Your task to perform on an android device: change the upload size in google photos Image 0: 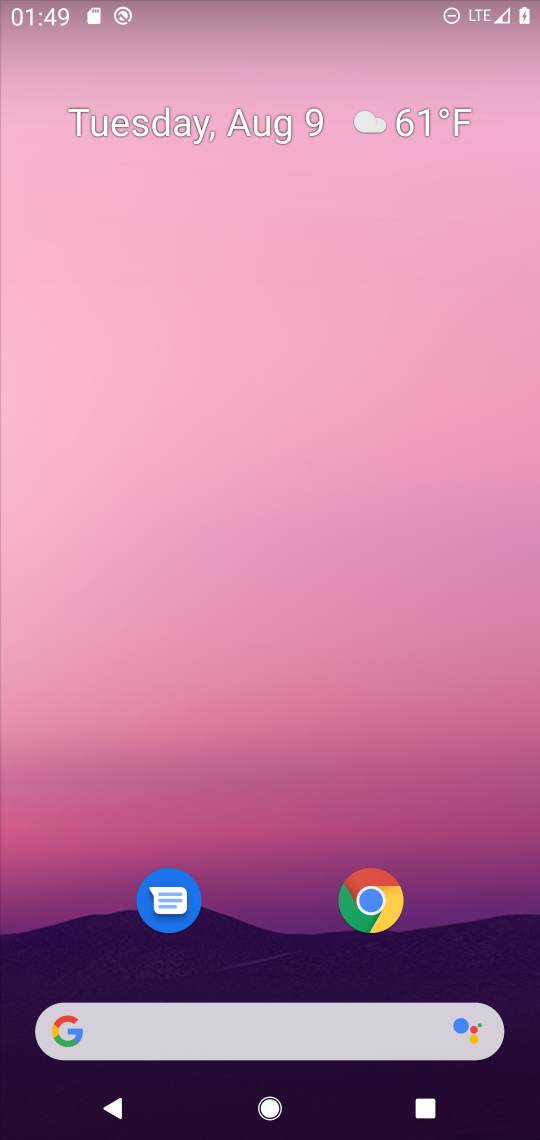
Step 0: drag from (270, 880) to (471, 129)
Your task to perform on an android device: change the upload size in google photos Image 1: 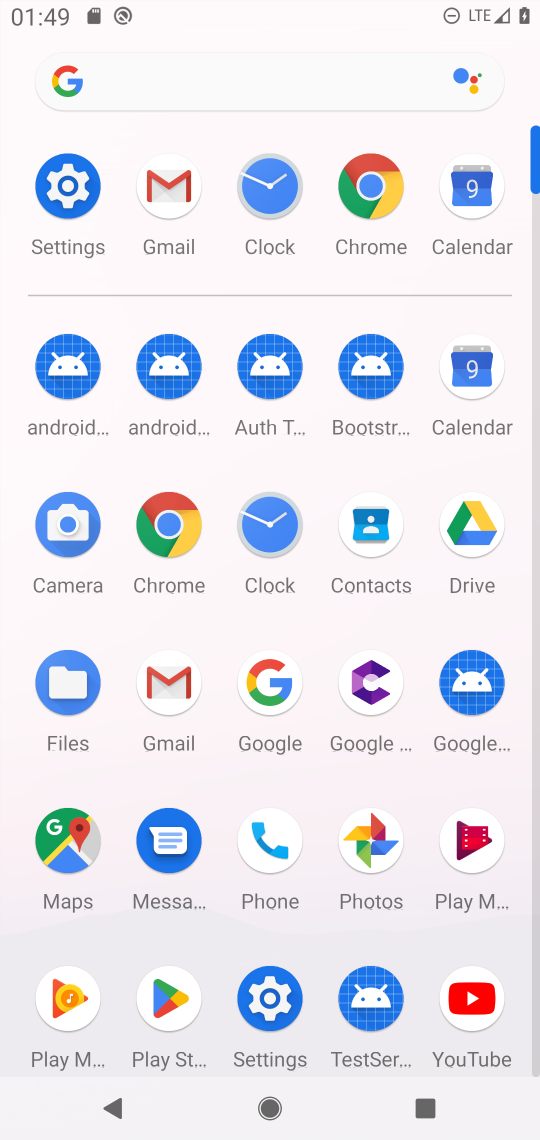
Step 1: click (360, 840)
Your task to perform on an android device: change the upload size in google photos Image 2: 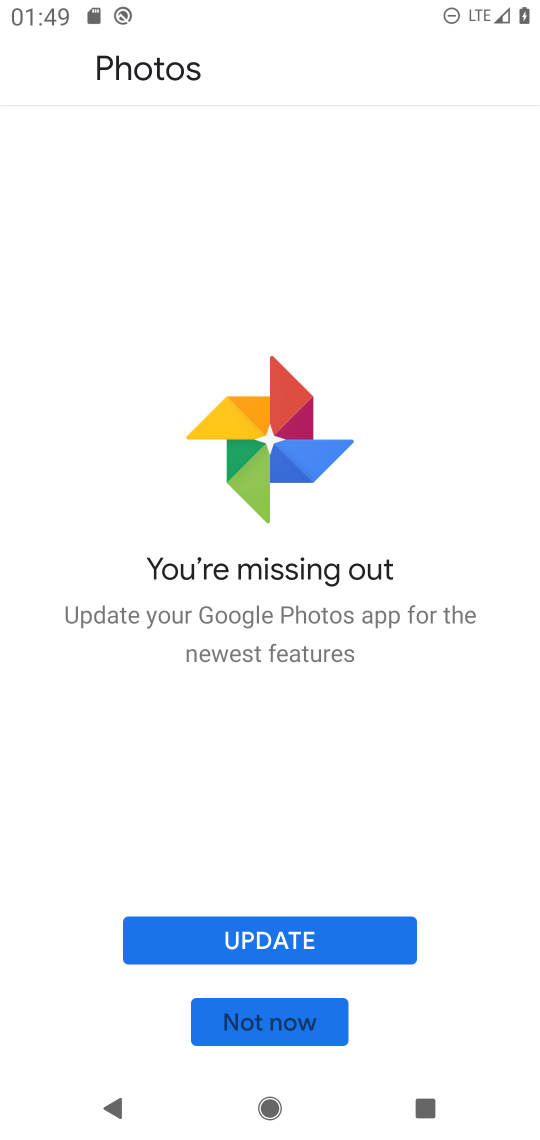
Step 2: click (439, 642)
Your task to perform on an android device: change the upload size in google photos Image 3: 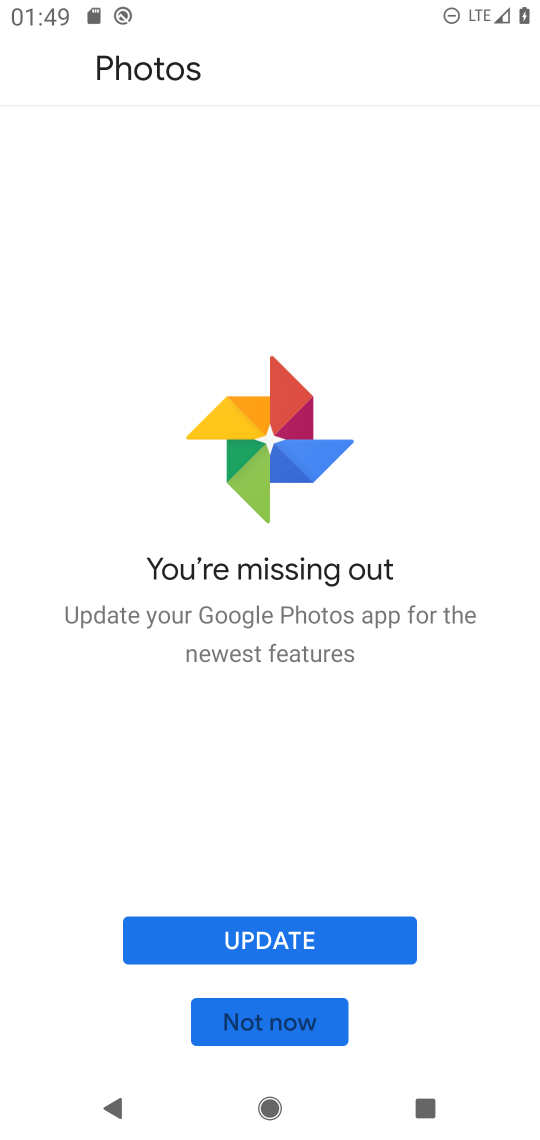
Step 3: click (263, 941)
Your task to perform on an android device: change the upload size in google photos Image 4: 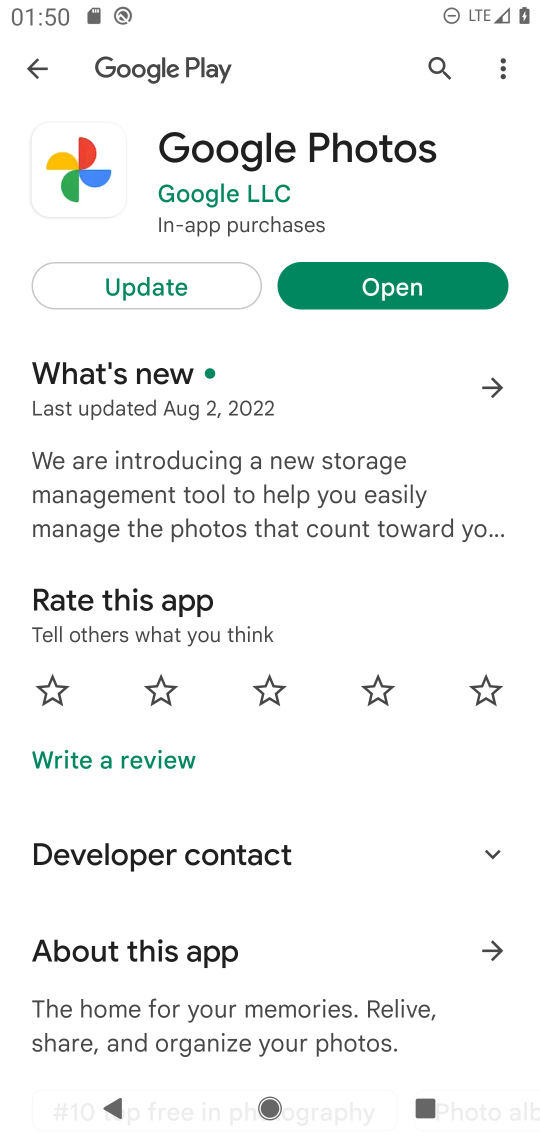
Step 4: click (184, 278)
Your task to perform on an android device: change the upload size in google photos Image 5: 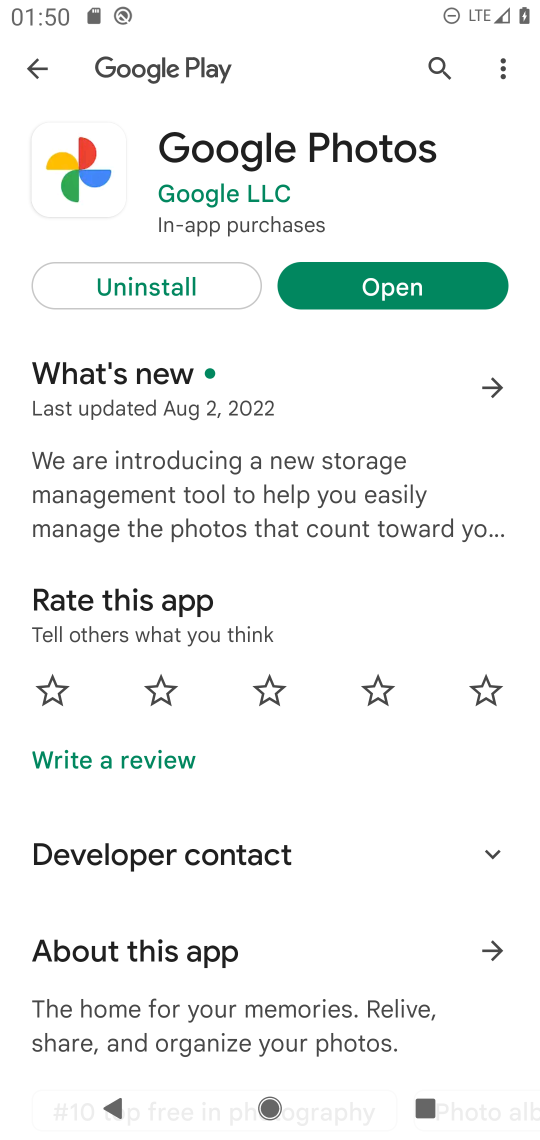
Step 5: click (409, 289)
Your task to perform on an android device: change the upload size in google photos Image 6: 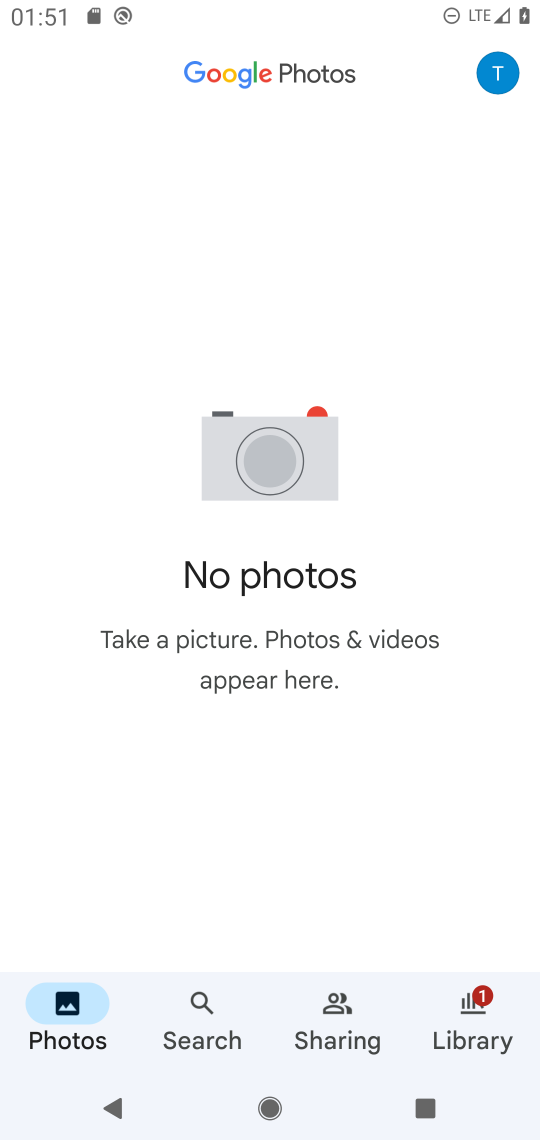
Step 6: click (493, 73)
Your task to perform on an android device: change the upload size in google photos Image 7: 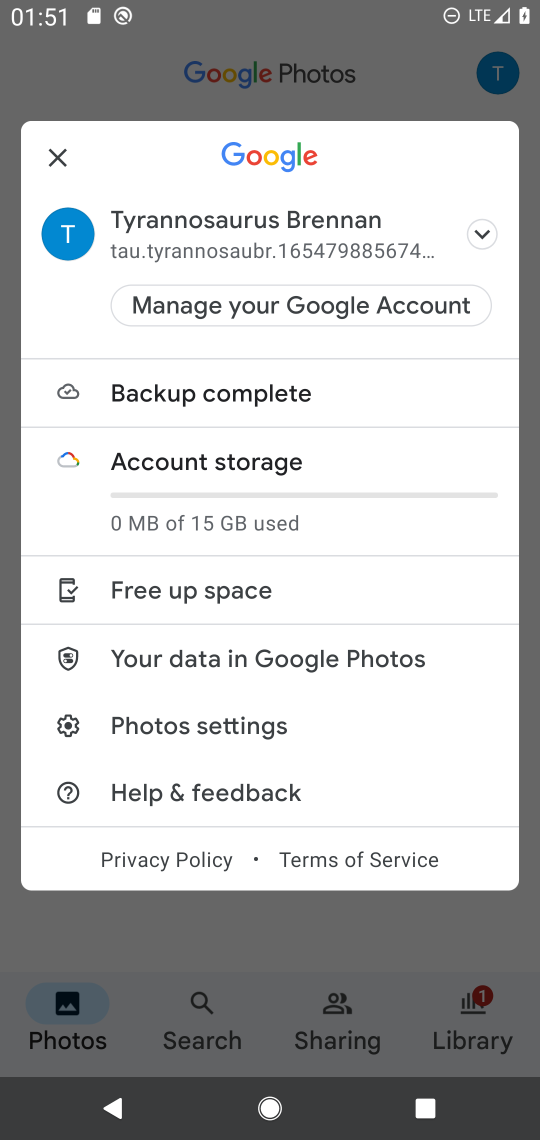
Step 7: click (252, 728)
Your task to perform on an android device: change the upload size in google photos Image 8: 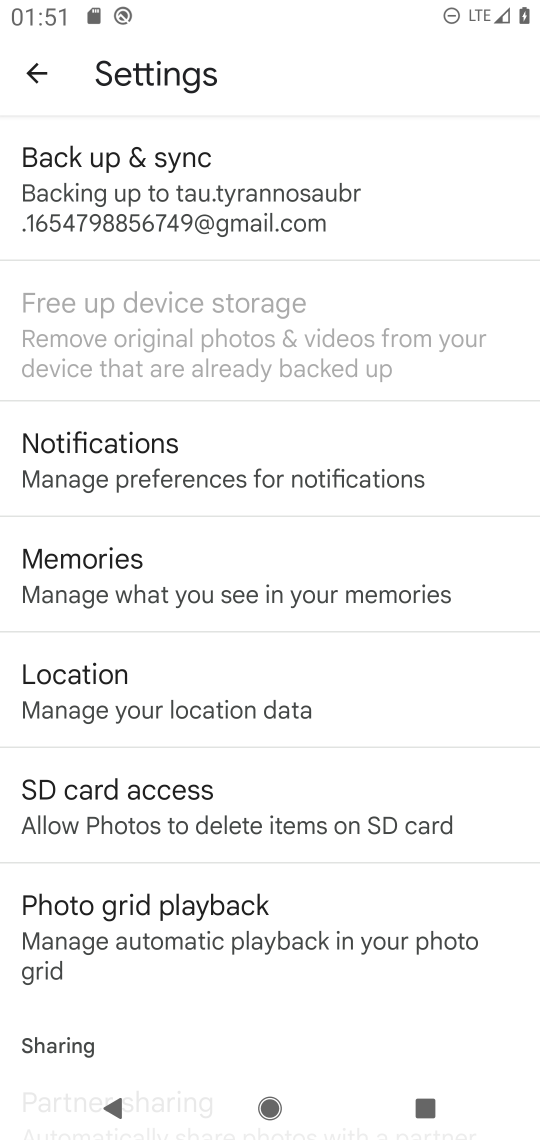
Step 8: click (267, 184)
Your task to perform on an android device: change the upload size in google photos Image 9: 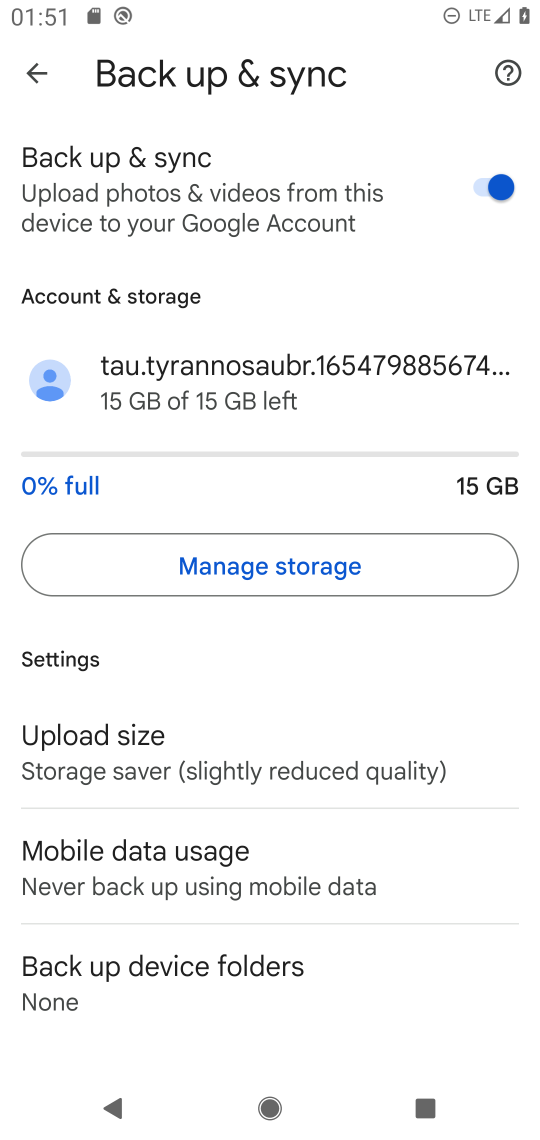
Step 9: drag from (415, 825) to (426, 580)
Your task to perform on an android device: change the upload size in google photos Image 10: 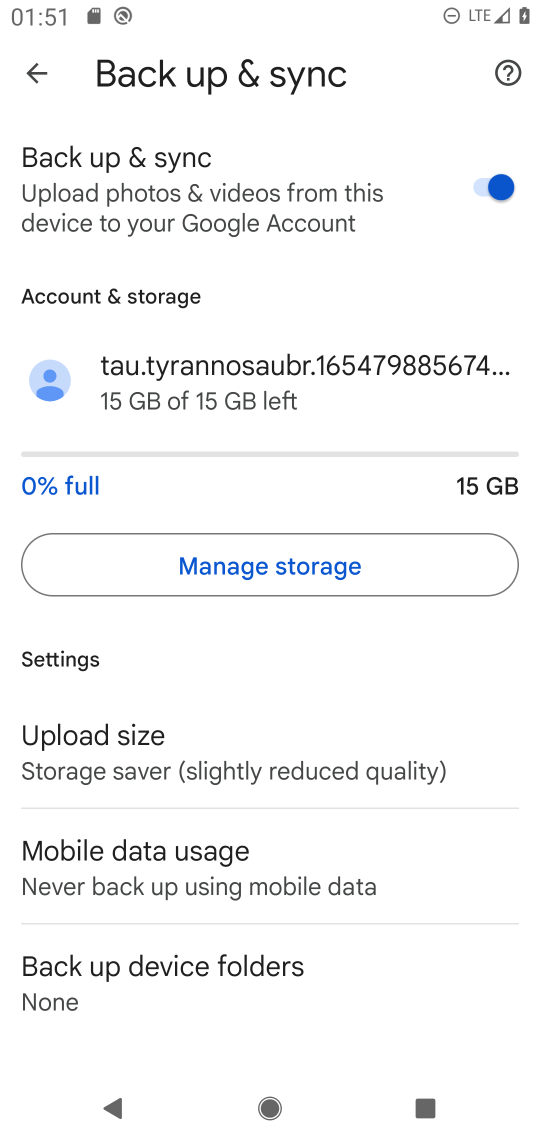
Step 10: drag from (437, 854) to (449, 509)
Your task to perform on an android device: change the upload size in google photos Image 11: 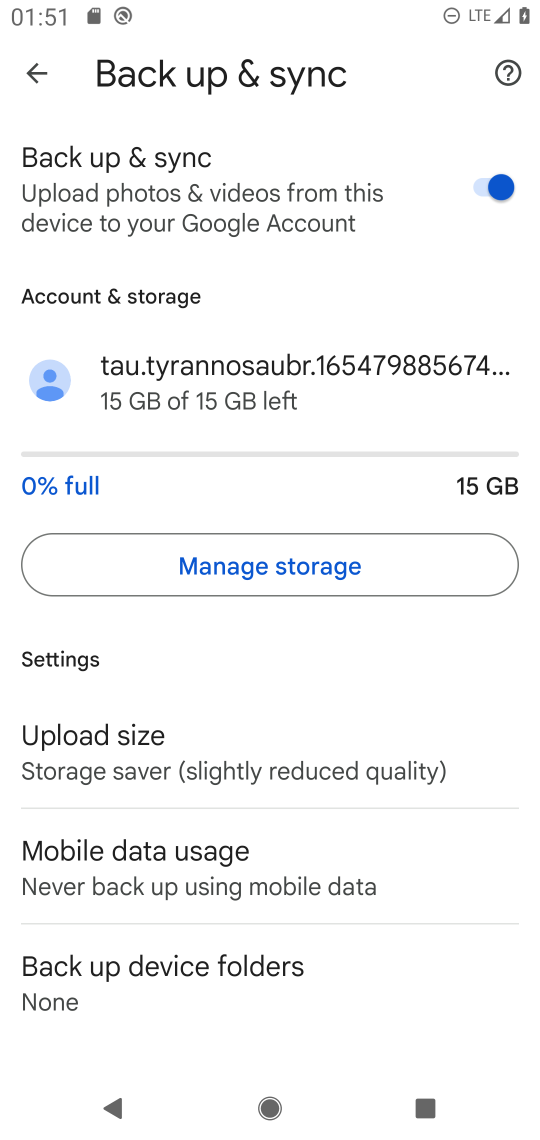
Step 11: drag from (462, 905) to (473, 799)
Your task to perform on an android device: change the upload size in google photos Image 12: 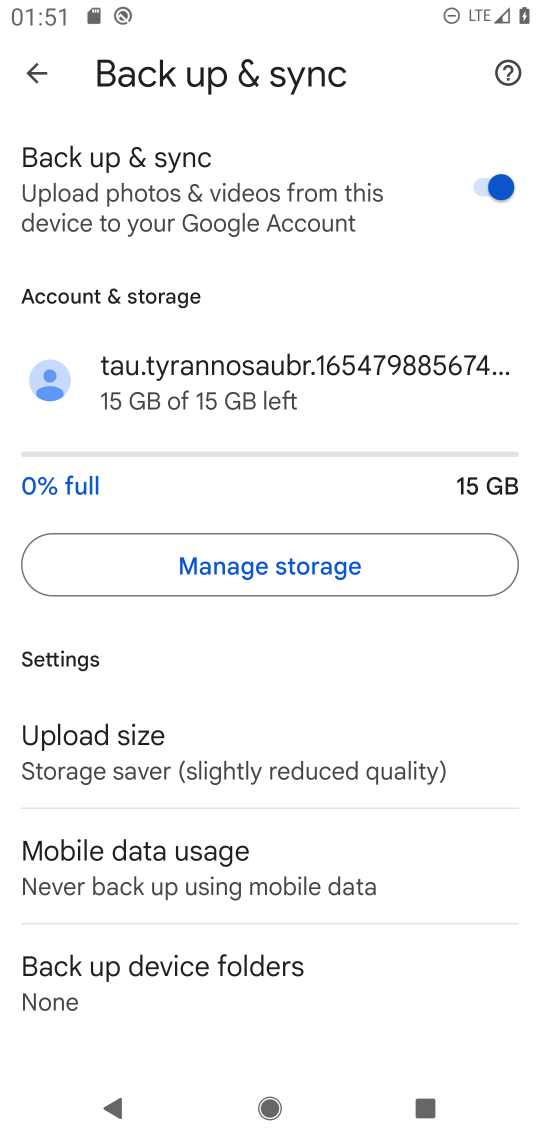
Step 12: click (234, 758)
Your task to perform on an android device: change the upload size in google photos Image 13: 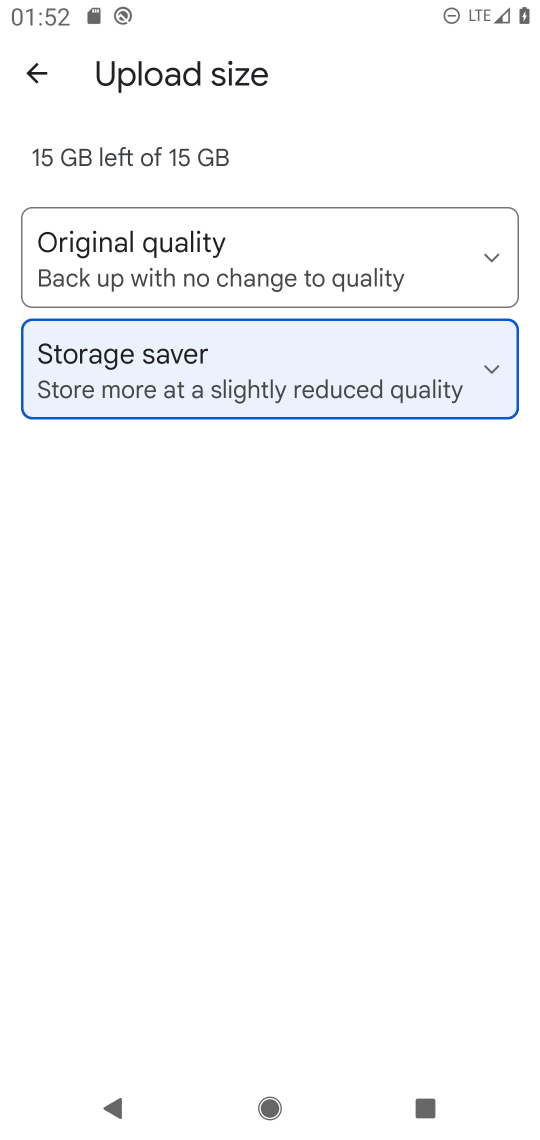
Step 13: click (243, 255)
Your task to perform on an android device: change the upload size in google photos Image 14: 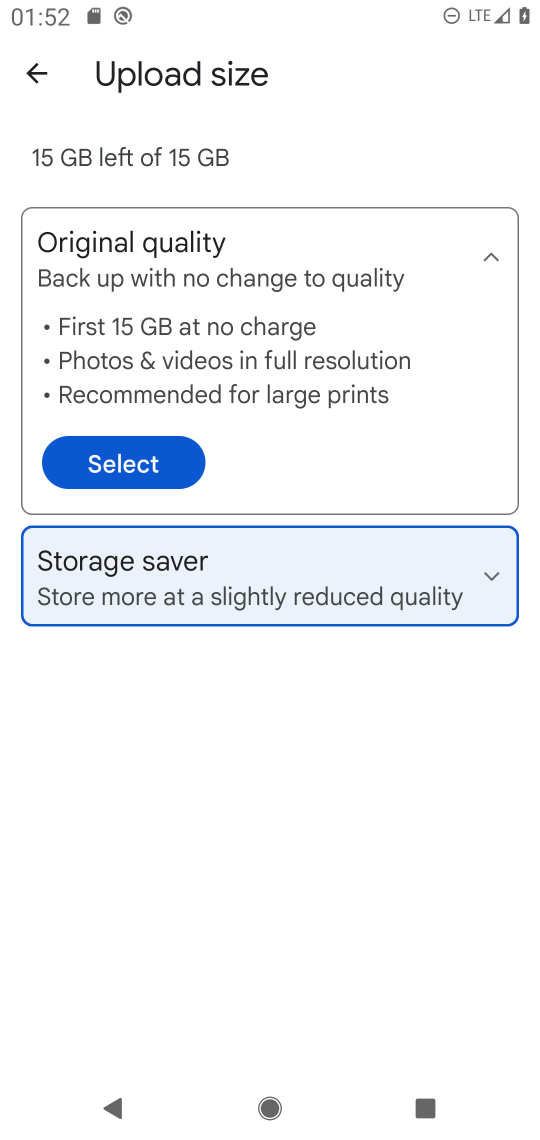
Step 14: click (166, 458)
Your task to perform on an android device: change the upload size in google photos Image 15: 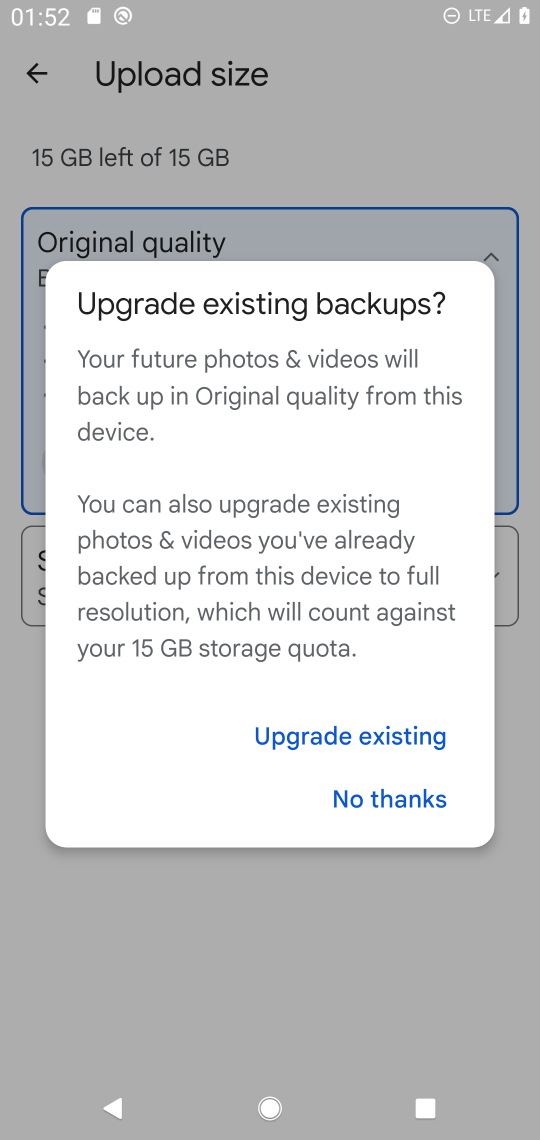
Step 15: click (342, 741)
Your task to perform on an android device: change the upload size in google photos Image 16: 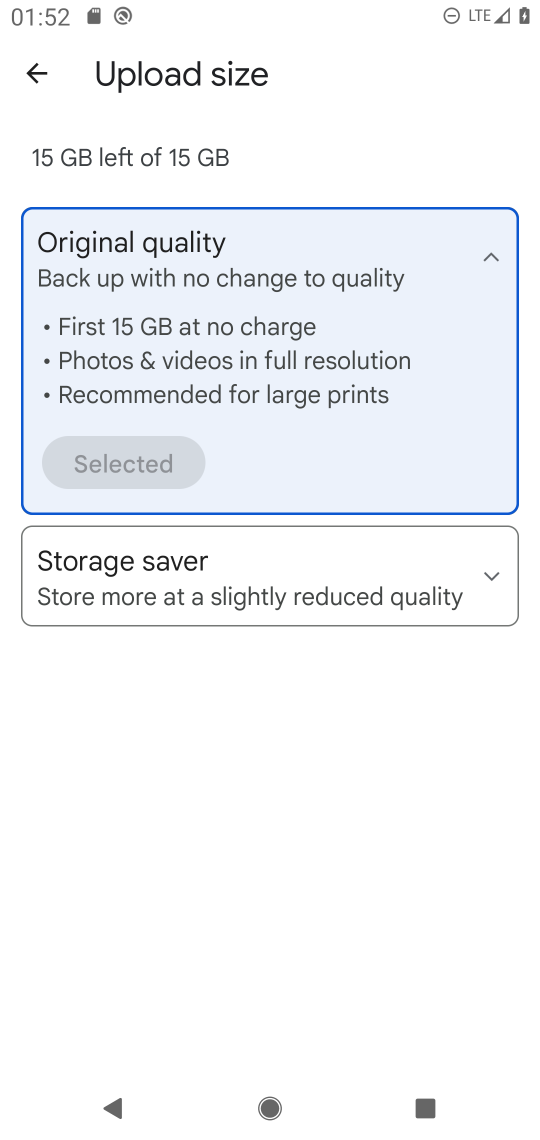
Step 16: task complete